Your task to perform on an android device: toggle pop-ups in chrome Image 0: 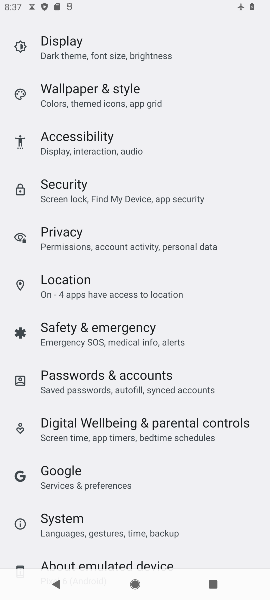
Step 0: press home button
Your task to perform on an android device: toggle pop-ups in chrome Image 1: 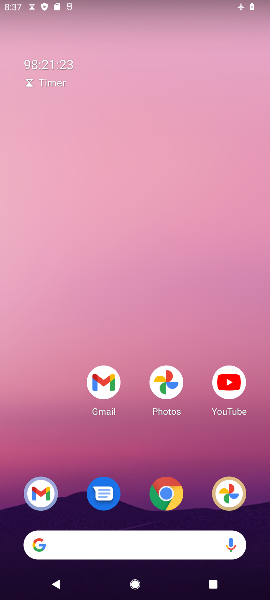
Step 1: drag from (143, 494) to (157, 73)
Your task to perform on an android device: toggle pop-ups in chrome Image 2: 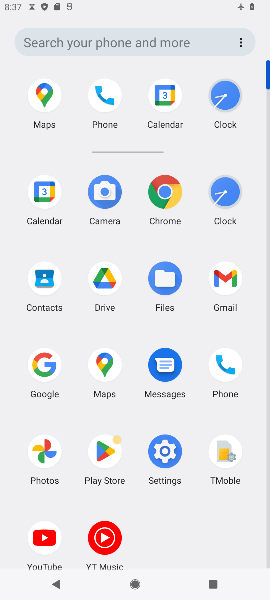
Step 2: click (156, 185)
Your task to perform on an android device: toggle pop-ups in chrome Image 3: 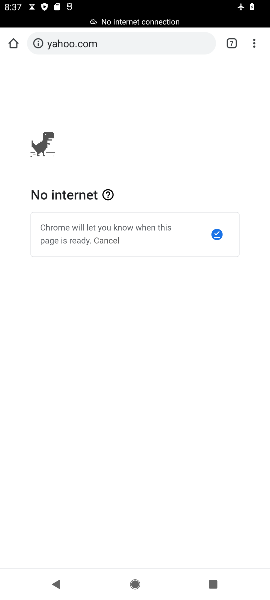
Step 3: click (256, 43)
Your task to perform on an android device: toggle pop-ups in chrome Image 4: 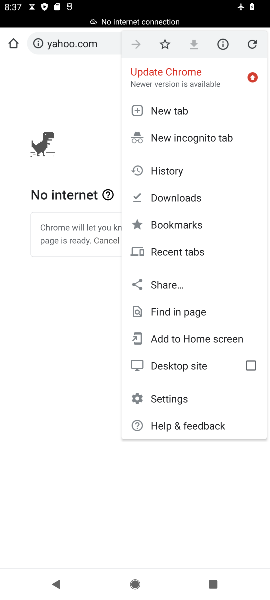
Step 4: click (166, 397)
Your task to perform on an android device: toggle pop-ups in chrome Image 5: 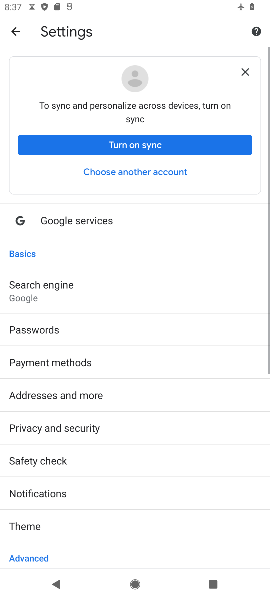
Step 5: drag from (128, 545) to (174, 314)
Your task to perform on an android device: toggle pop-ups in chrome Image 6: 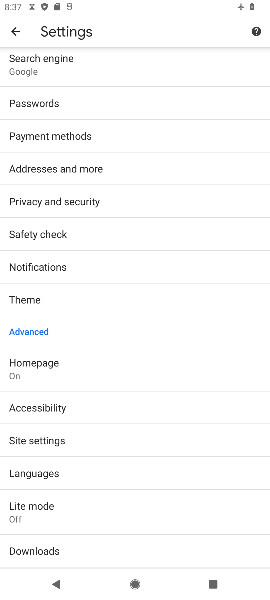
Step 6: click (88, 437)
Your task to perform on an android device: toggle pop-ups in chrome Image 7: 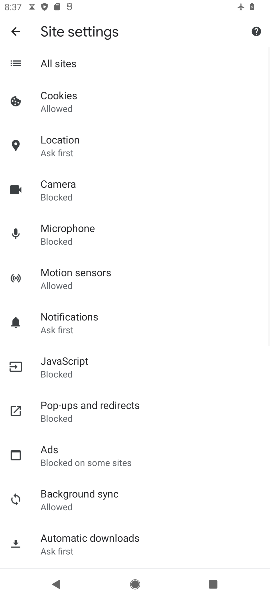
Step 7: click (109, 400)
Your task to perform on an android device: toggle pop-ups in chrome Image 8: 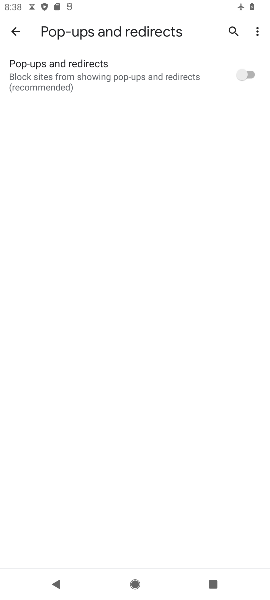
Step 8: click (256, 69)
Your task to perform on an android device: toggle pop-ups in chrome Image 9: 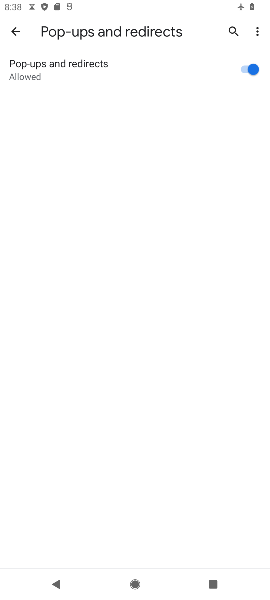
Step 9: task complete